Your task to perform on an android device: Open battery settings Image 0: 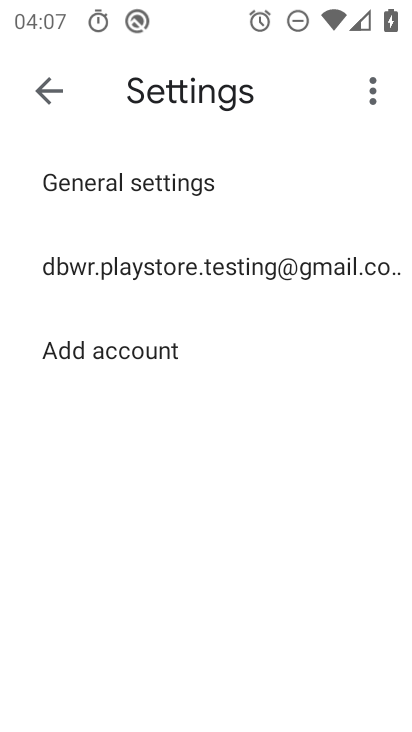
Step 0: press home button
Your task to perform on an android device: Open battery settings Image 1: 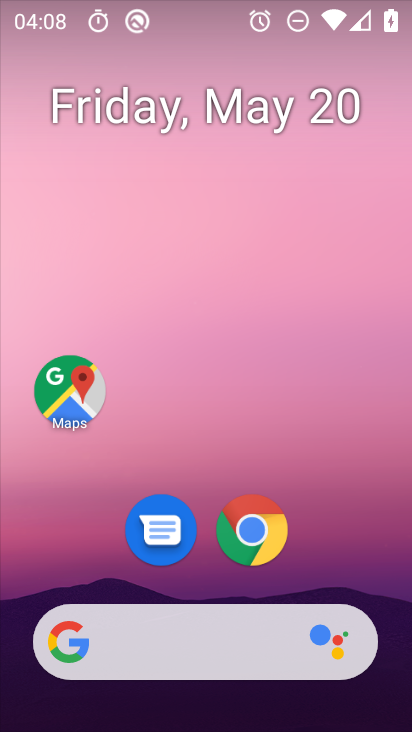
Step 1: click (232, 527)
Your task to perform on an android device: Open battery settings Image 2: 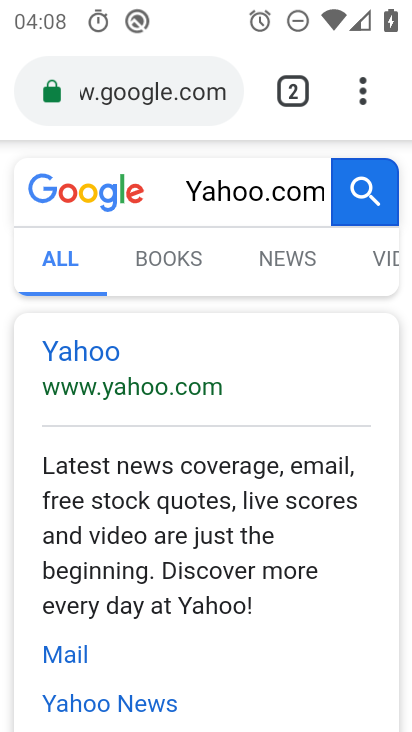
Step 2: click (359, 94)
Your task to perform on an android device: Open battery settings Image 3: 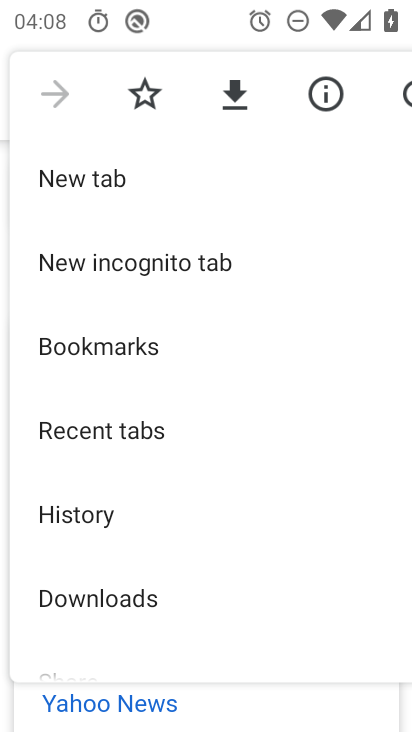
Step 3: drag from (231, 633) to (242, 325)
Your task to perform on an android device: Open battery settings Image 4: 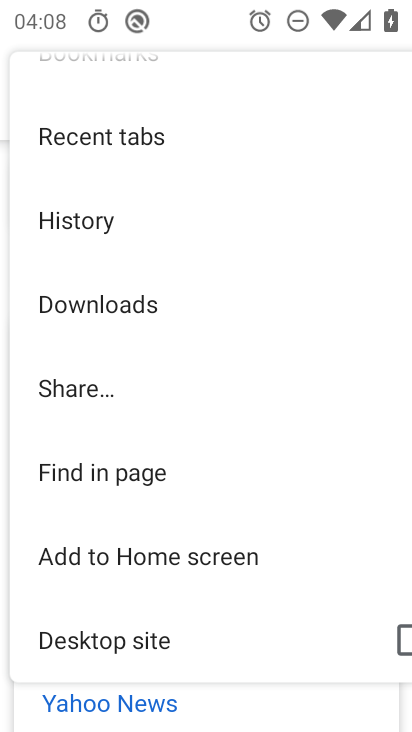
Step 4: press home button
Your task to perform on an android device: Open battery settings Image 5: 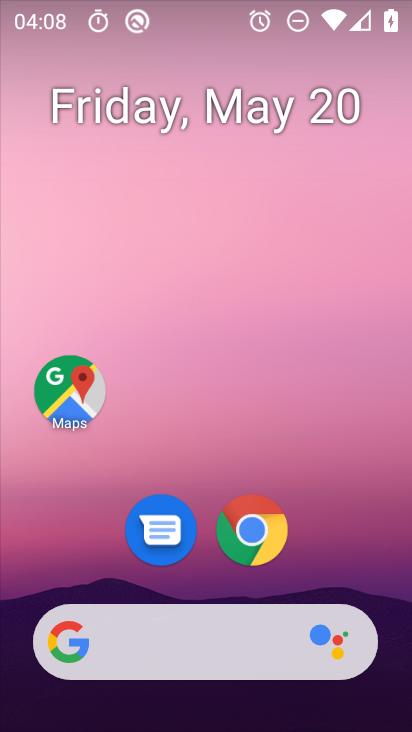
Step 5: drag from (382, 487) to (333, 205)
Your task to perform on an android device: Open battery settings Image 6: 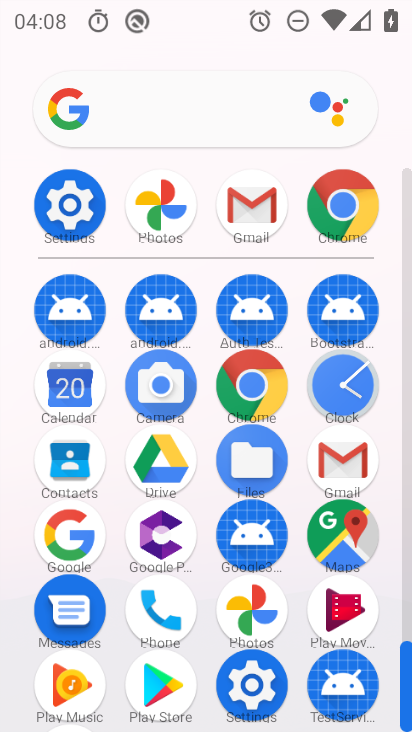
Step 6: click (72, 220)
Your task to perform on an android device: Open battery settings Image 7: 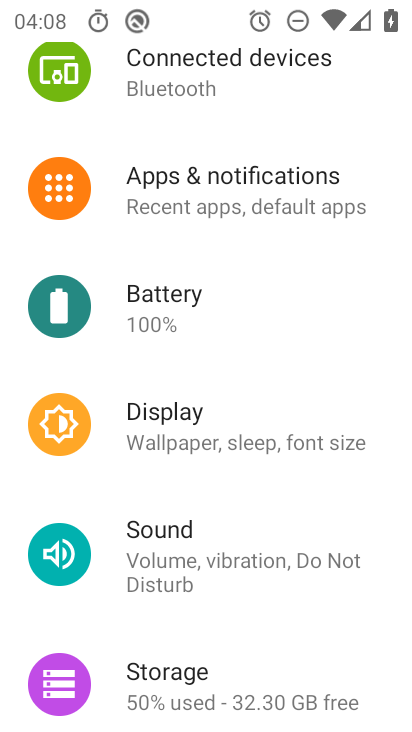
Step 7: click (151, 291)
Your task to perform on an android device: Open battery settings Image 8: 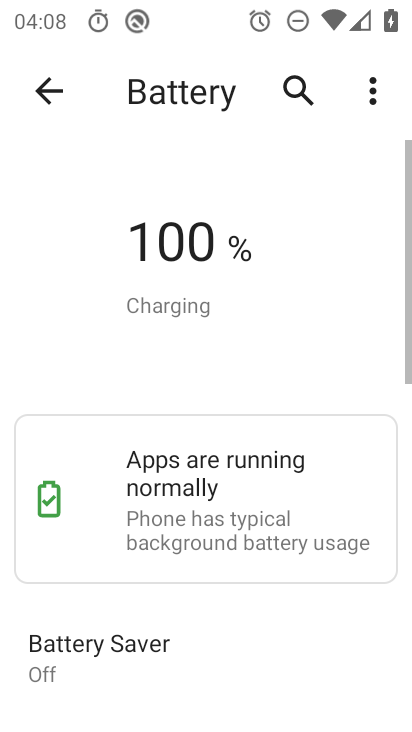
Step 8: task complete